Your task to perform on an android device: turn on notifications settings in the gmail app Image 0: 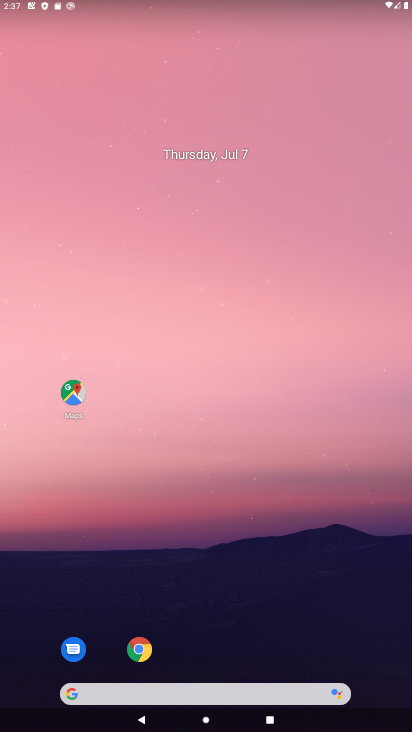
Step 0: drag from (263, 693) to (285, 41)
Your task to perform on an android device: turn on notifications settings in the gmail app Image 1: 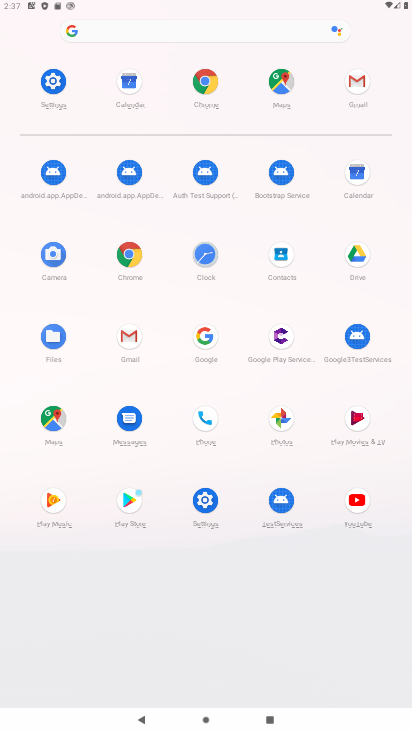
Step 1: click (129, 337)
Your task to perform on an android device: turn on notifications settings in the gmail app Image 2: 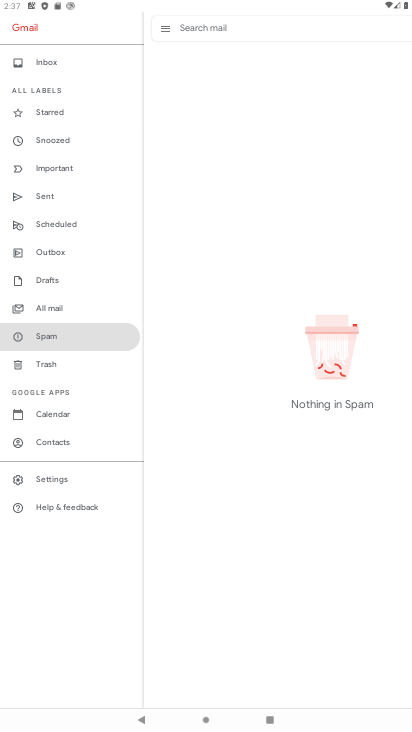
Step 2: click (49, 490)
Your task to perform on an android device: turn on notifications settings in the gmail app Image 3: 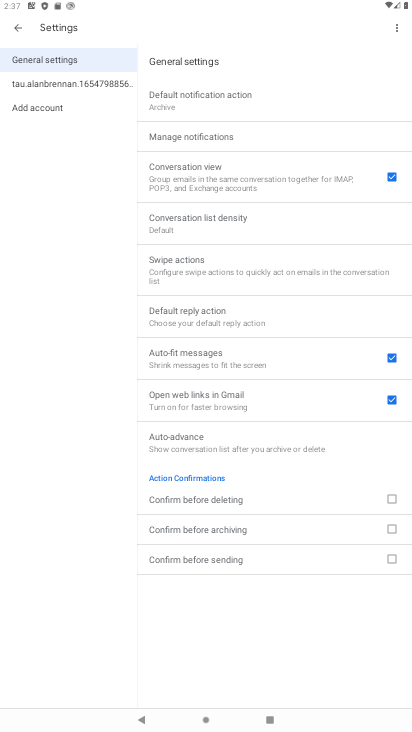
Step 3: click (83, 94)
Your task to perform on an android device: turn on notifications settings in the gmail app Image 4: 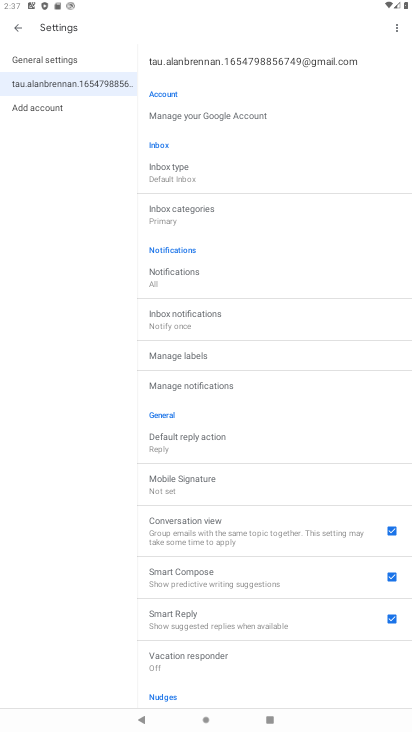
Step 4: click (224, 383)
Your task to perform on an android device: turn on notifications settings in the gmail app Image 5: 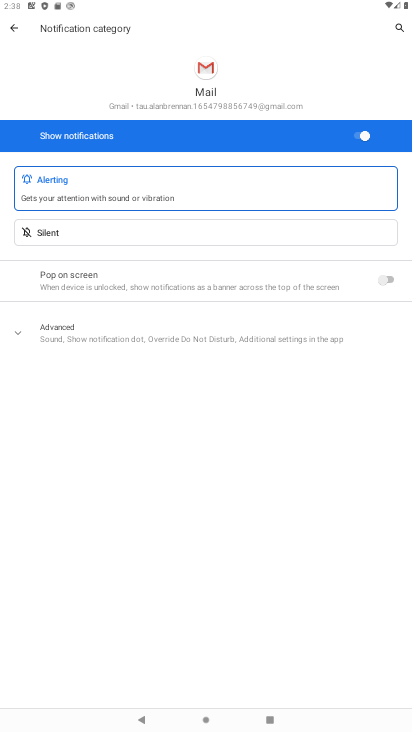
Step 5: task complete